Your task to perform on an android device: Add "bose soundsport free" to the cart on amazon, then select checkout. Image 0: 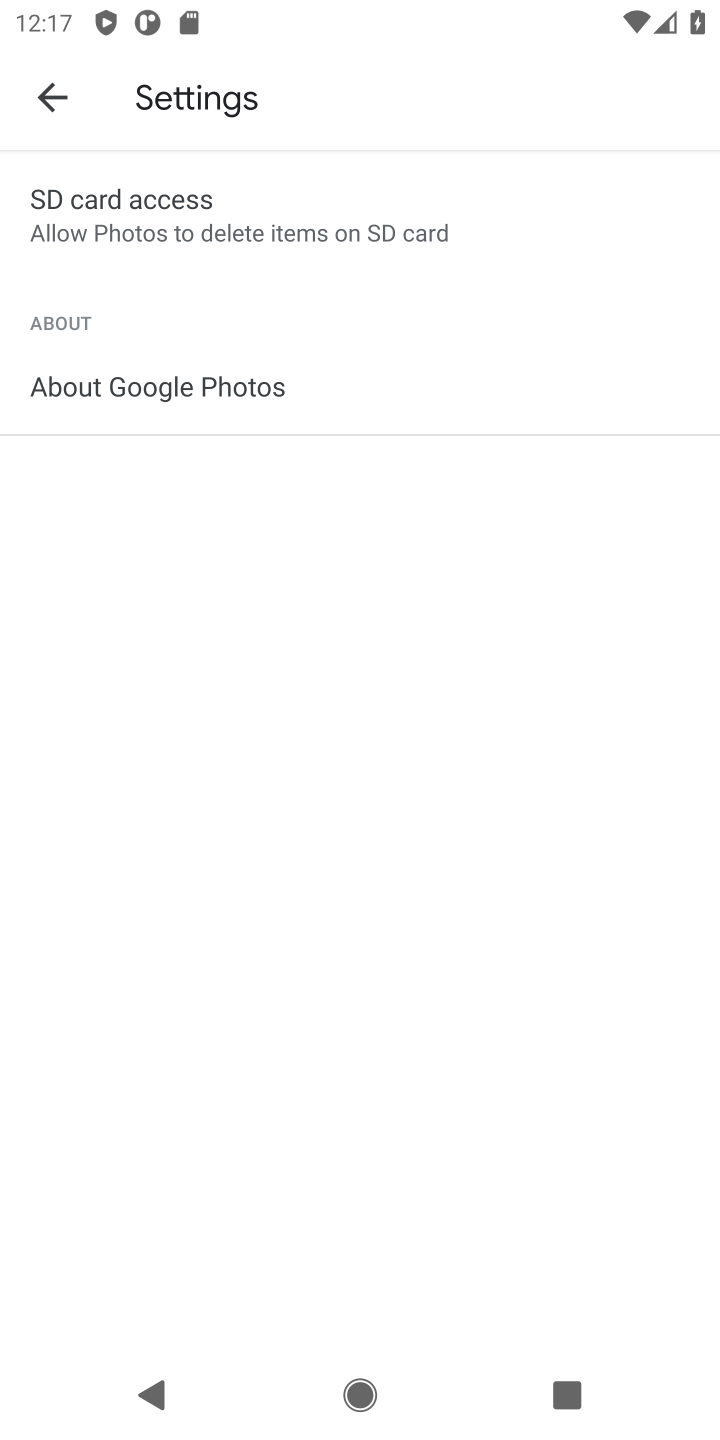
Step 0: press home button
Your task to perform on an android device: Add "bose soundsport free" to the cart on amazon, then select checkout. Image 1: 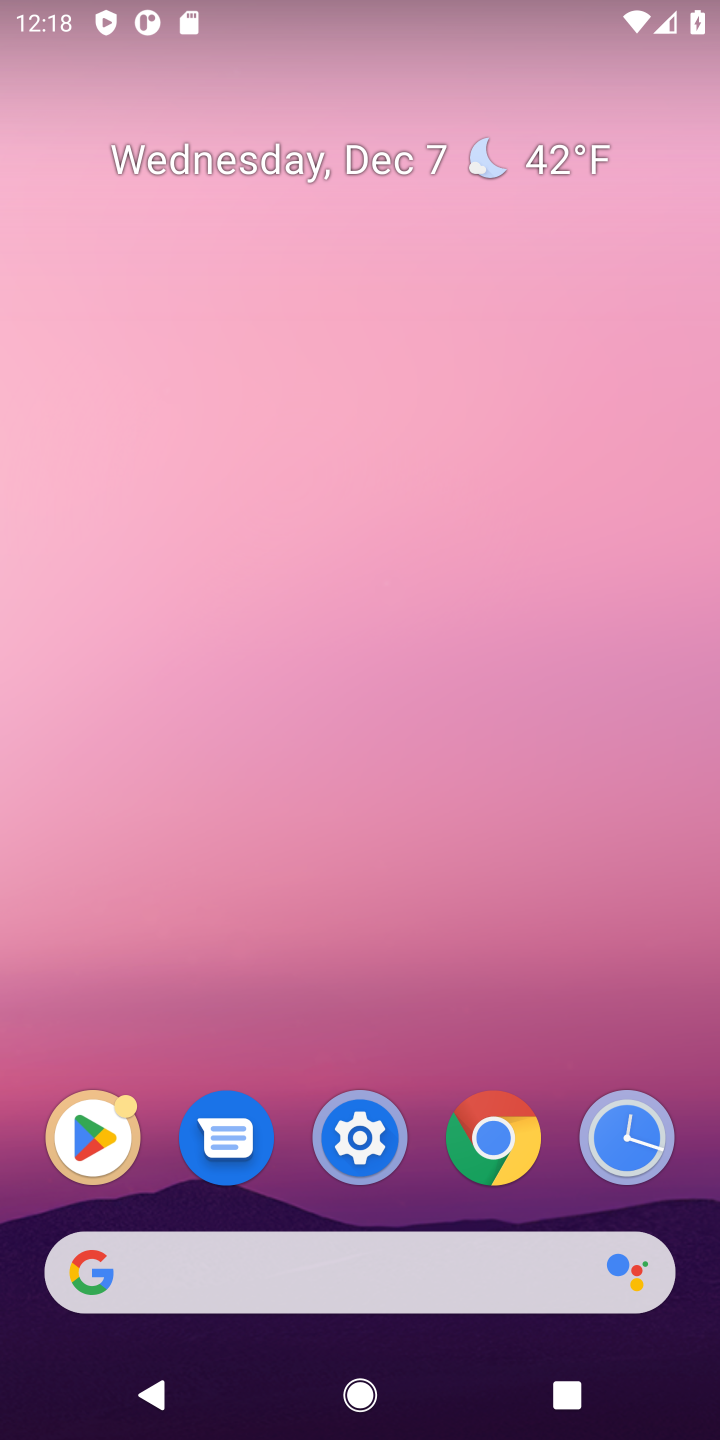
Step 1: click (379, 1268)
Your task to perform on an android device: Add "bose soundsport free" to the cart on amazon, then select checkout. Image 2: 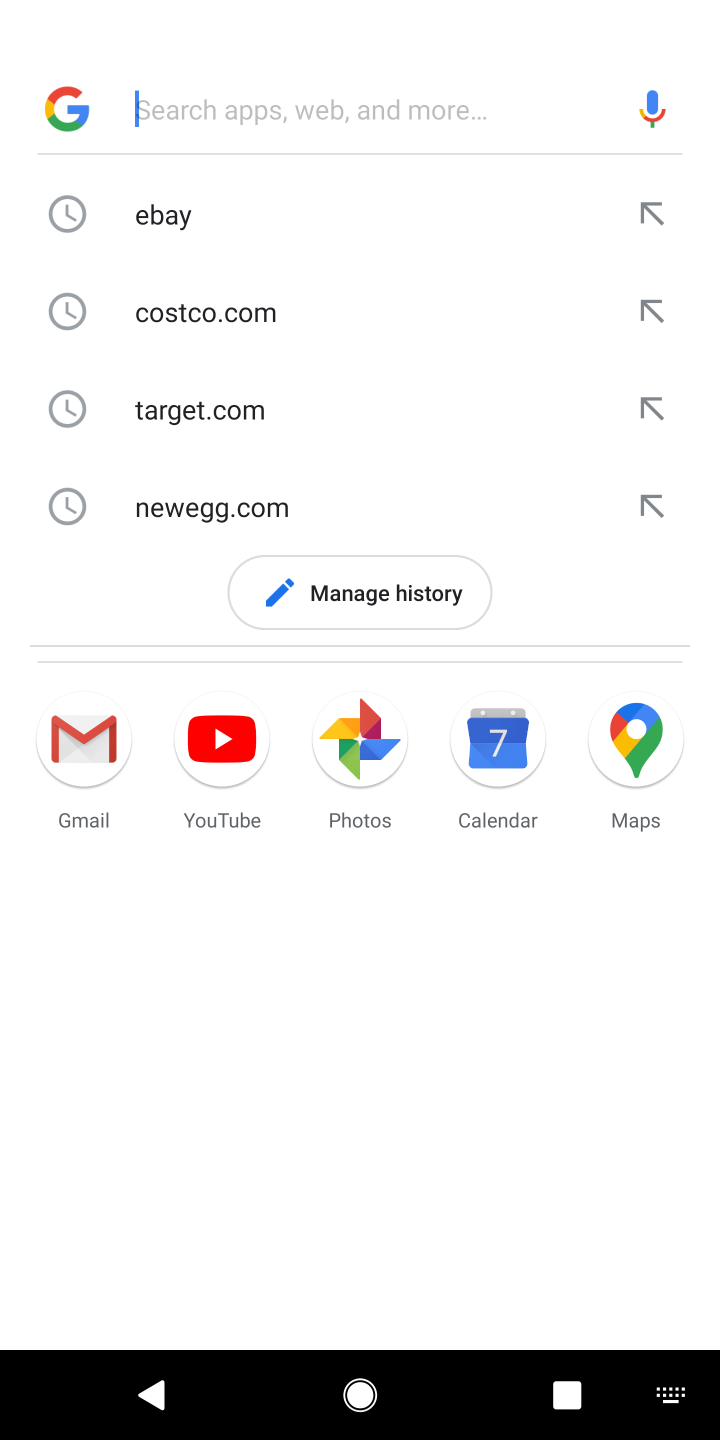
Step 2: type "amazon"
Your task to perform on an android device: Add "bose soundsport free" to the cart on amazon, then select checkout. Image 3: 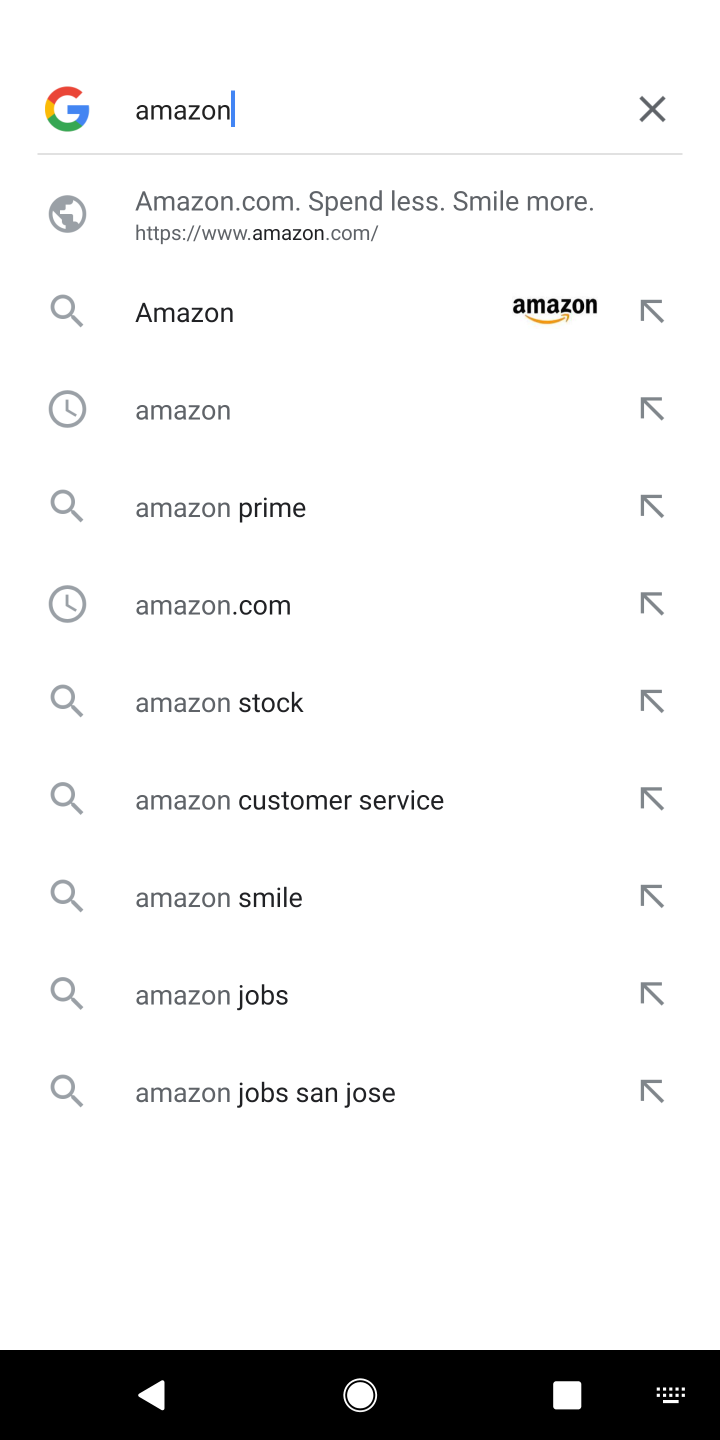
Step 3: click (356, 327)
Your task to perform on an android device: Add "bose soundsport free" to the cart on amazon, then select checkout. Image 4: 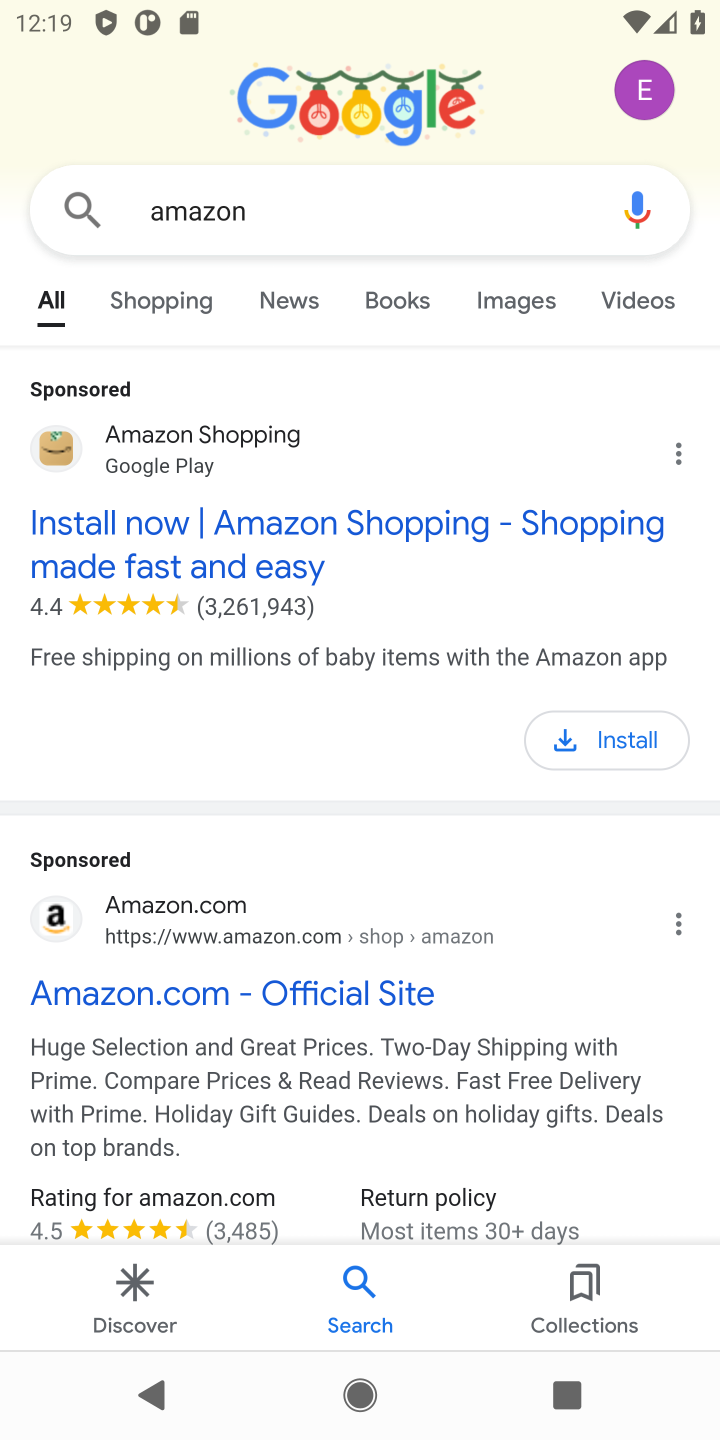
Step 4: click (253, 997)
Your task to perform on an android device: Add "bose soundsport free" to the cart on amazon, then select checkout. Image 5: 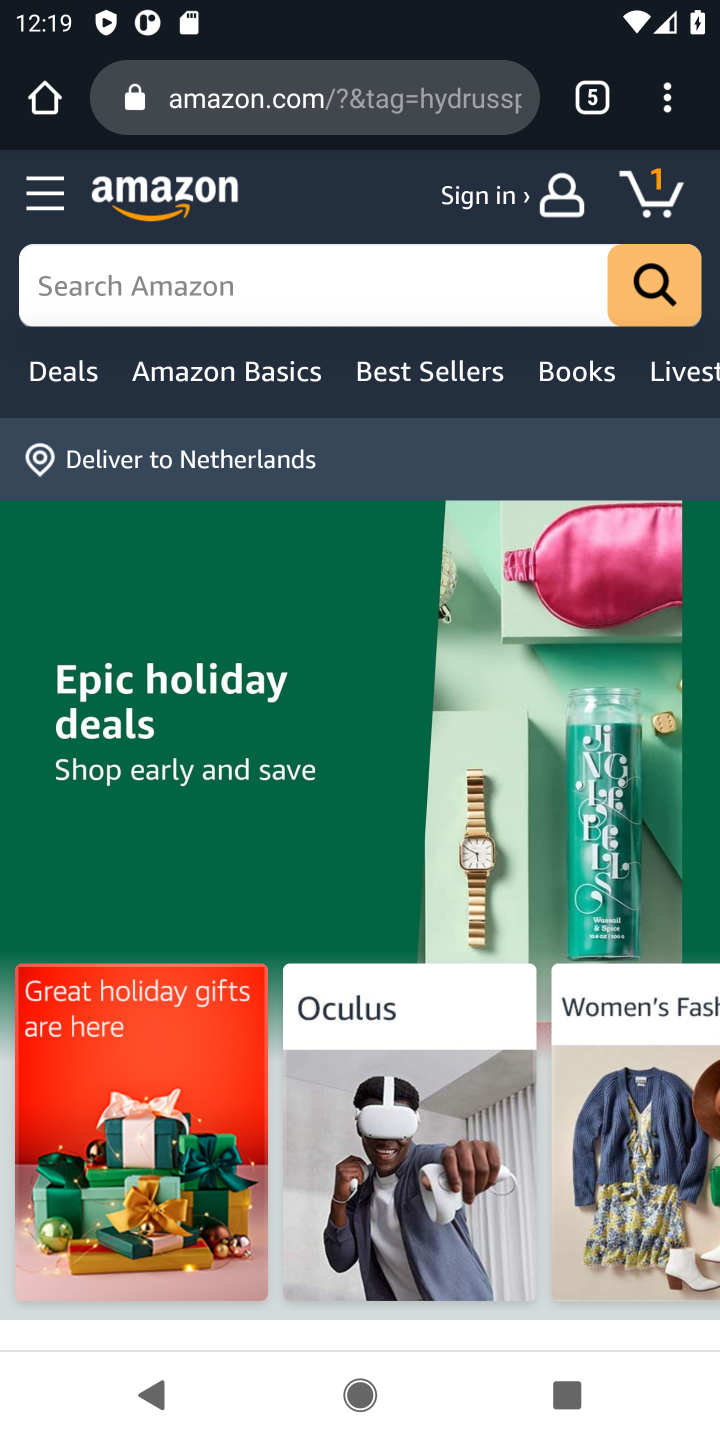
Step 5: click (106, 263)
Your task to perform on an android device: Add "bose soundsport free" to the cart on amazon, then select checkout. Image 6: 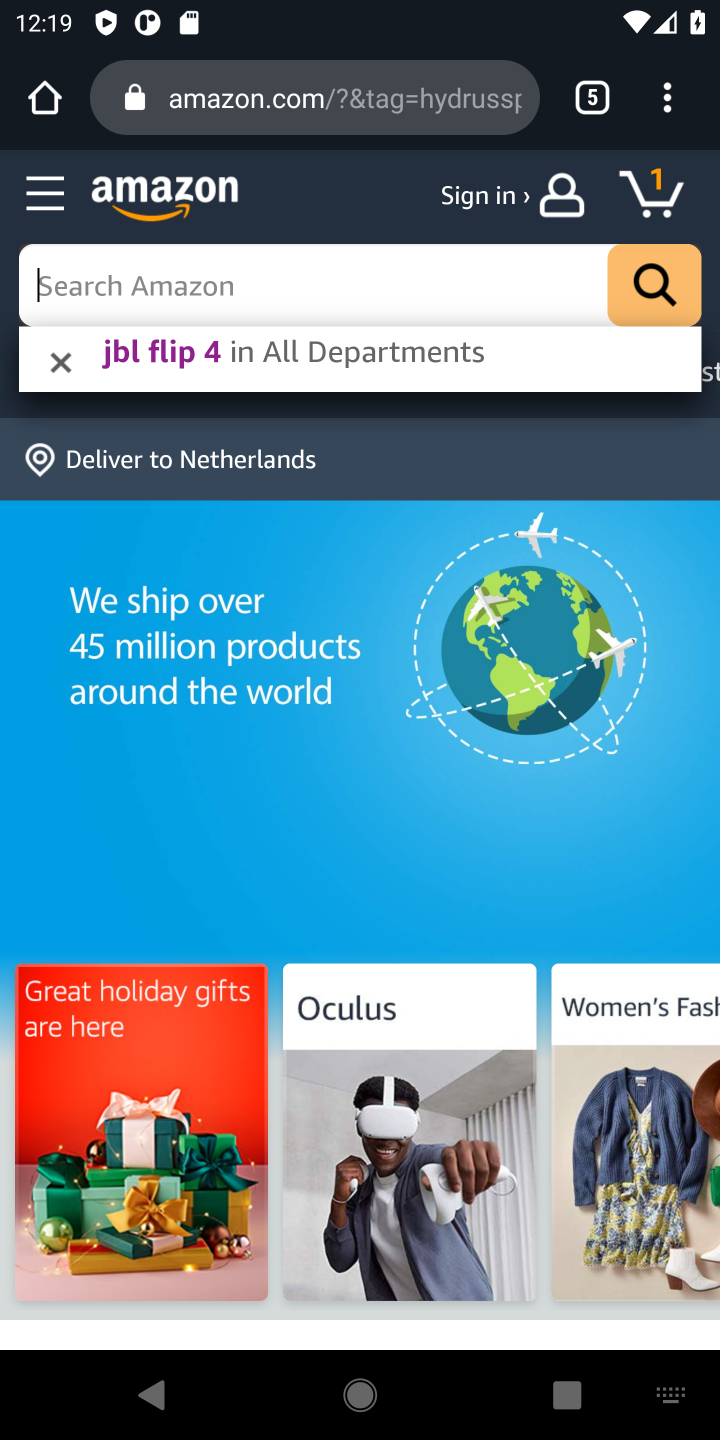
Step 6: type "bose soundsport"
Your task to perform on an android device: Add "bose soundsport free" to the cart on amazon, then select checkout. Image 7: 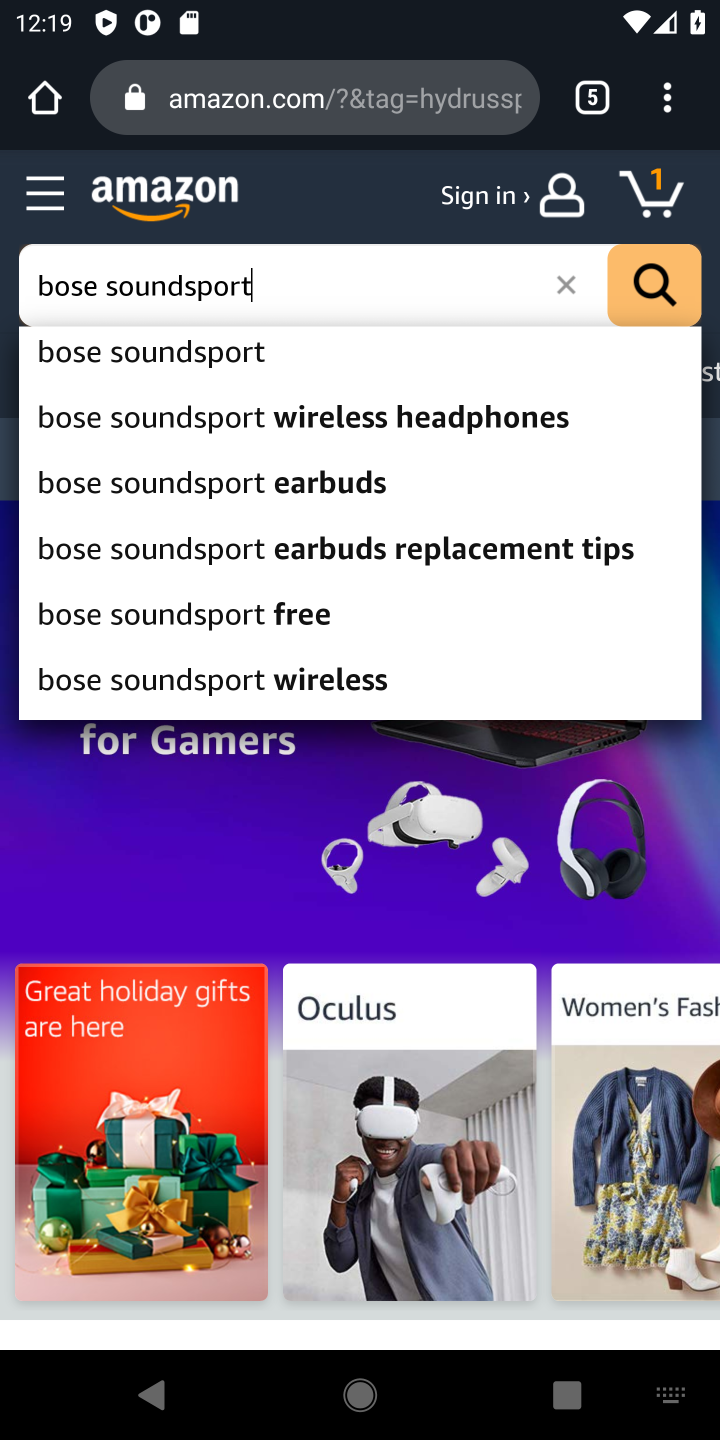
Step 7: click (371, 329)
Your task to perform on an android device: Add "bose soundsport free" to the cart on amazon, then select checkout. Image 8: 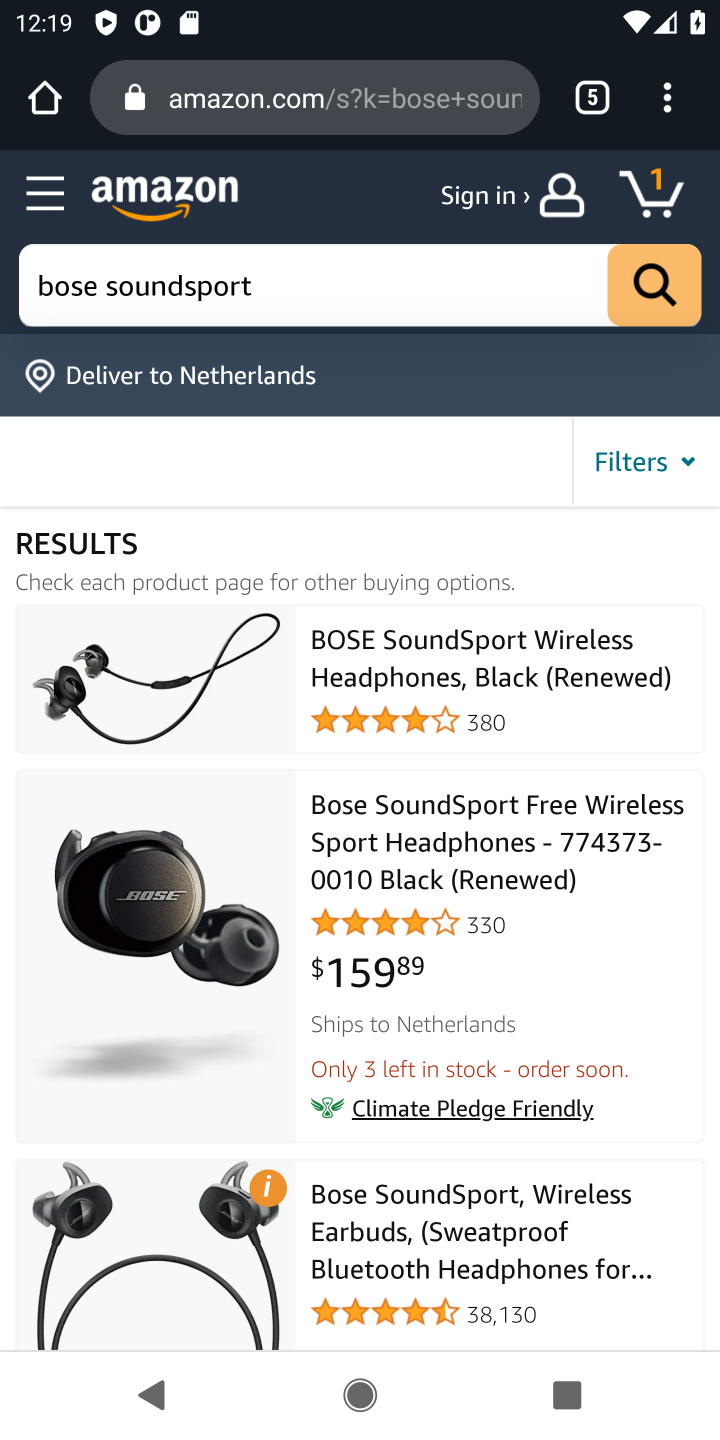
Step 8: click (449, 816)
Your task to perform on an android device: Add "bose soundsport free" to the cart on amazon, then select checkout. Image 9: 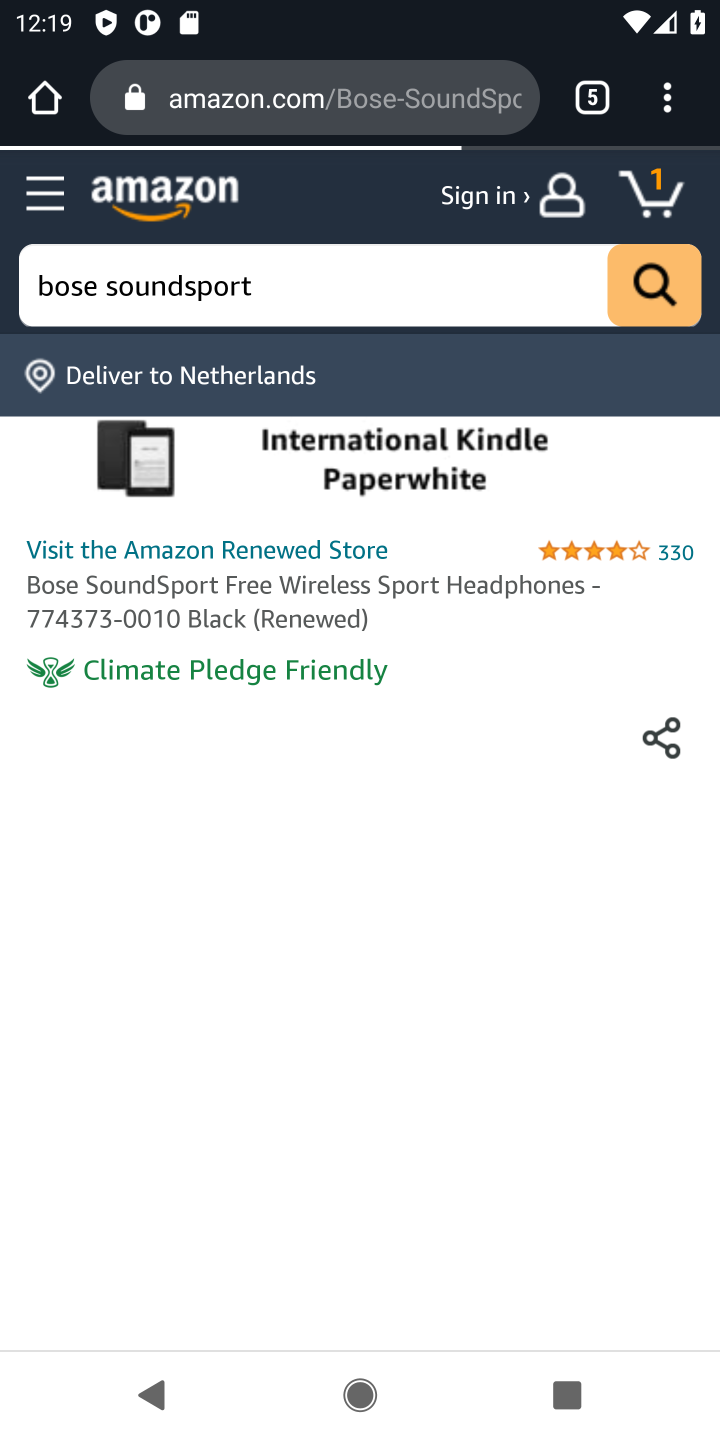
Step 9: task complete